Your task to perform on an android device: see sites visited before in the chrome app Image 0: 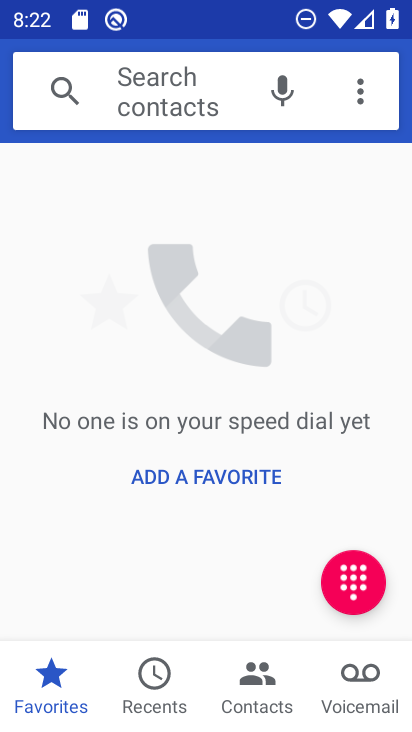
Step 0: press home button
Your task to perform on an android device: see sites visited before in the chrome app Image 1: 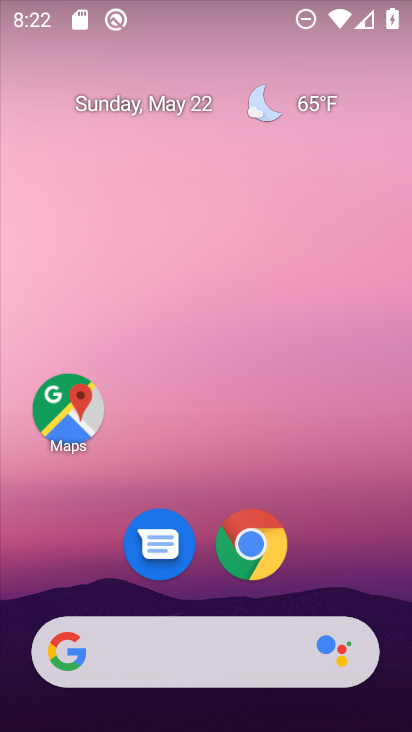
Step 1: click (250, 521)
Your task to perform on an android device: see sites visited before in the chrome app Image 2: 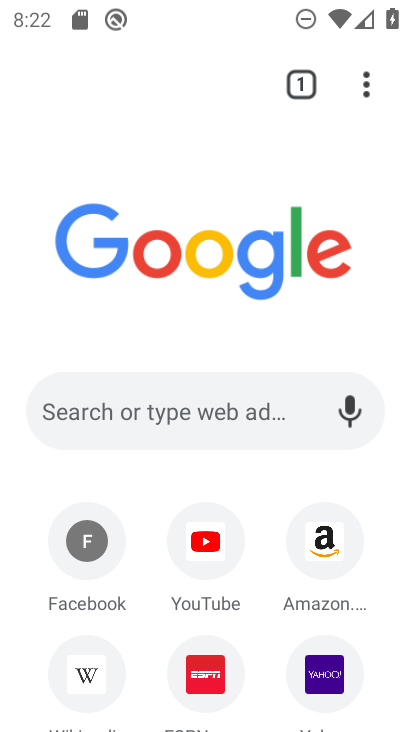
Step 2: click (367, 78)
Your task to perform on an android device: see sites visited before in the chrome app Image 3: 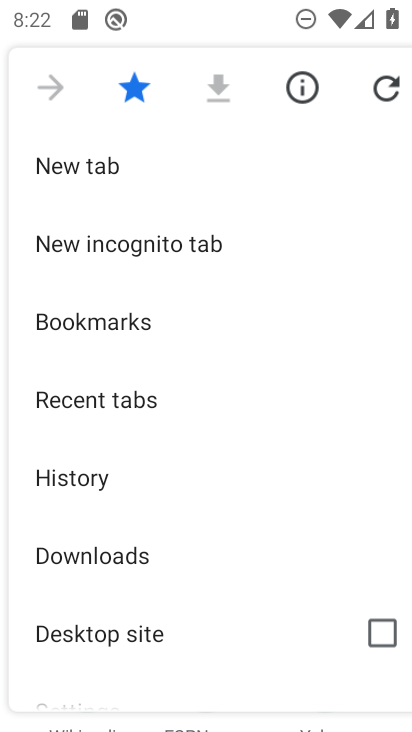
Step 3: drag from (272, 670) to (276, 424)
Your task to perform on an android device: see sites visited before in the chrome app Image 4: 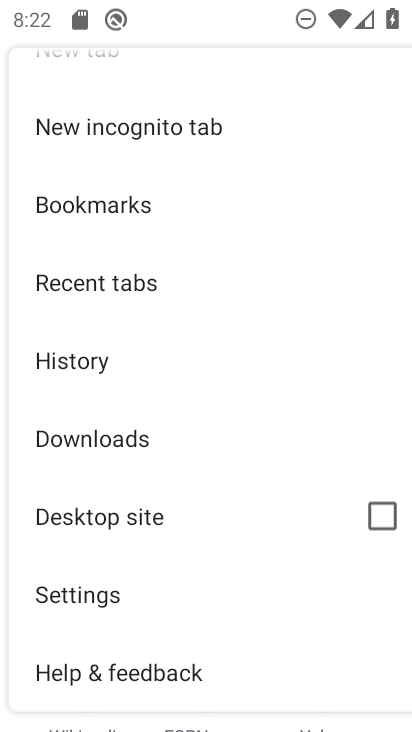
Step 4: drag from (258, 606) to (246, 362)
Your task to perform on an android device: see sites visited before in the chrome app Image 5: 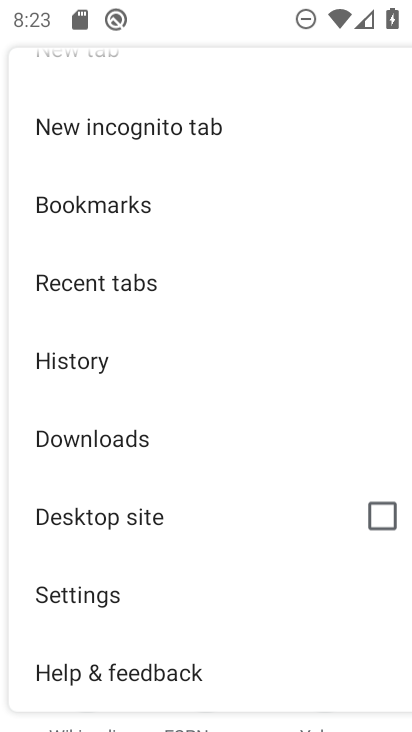
Step 5: click (122, 275)
Your task to perform on an android device: see sites visited before in the chrome app Image 6: 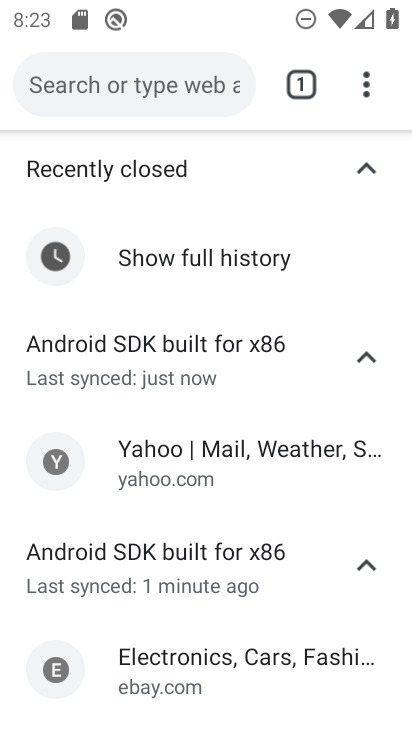
Step 6: task complete